Your task to perform on an android device: toggle pop-ups in chrome Image 0: 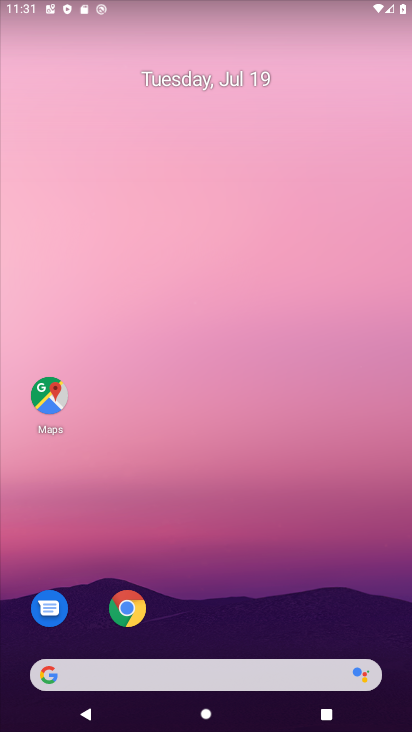
Step 0: press home button
Your task to perform on an android device: toggle pop-ups in chrome Image 1: 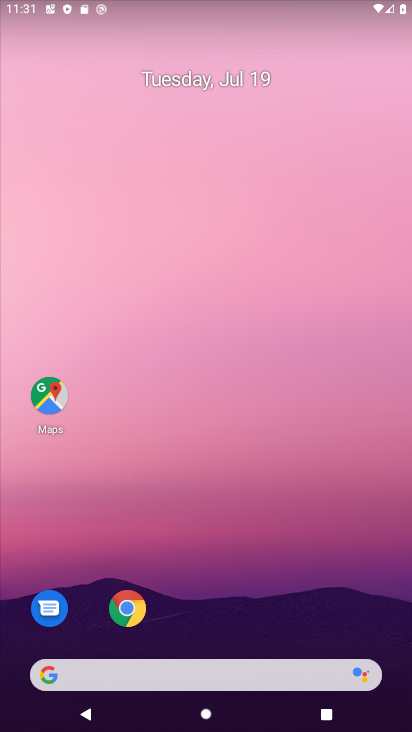
Step 1: click (125, 610)
Your task to perform on an android device: toggle pop-ups in chrome Image 2: 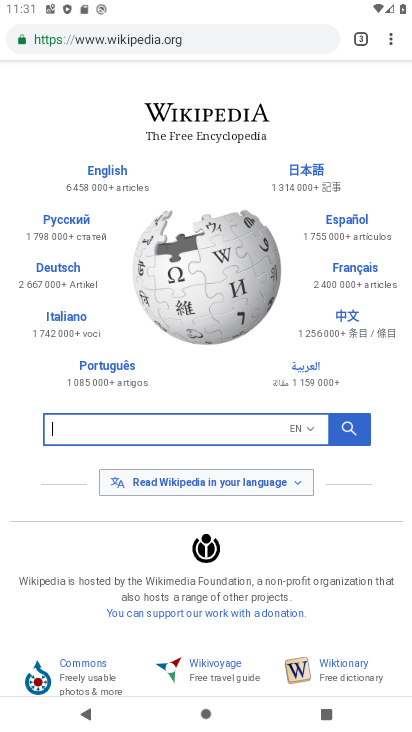
Step 2: drag from (395, 40) to (275, 505)
Your task to perform on an android device: toggle pop-ups in chrome Image 3: 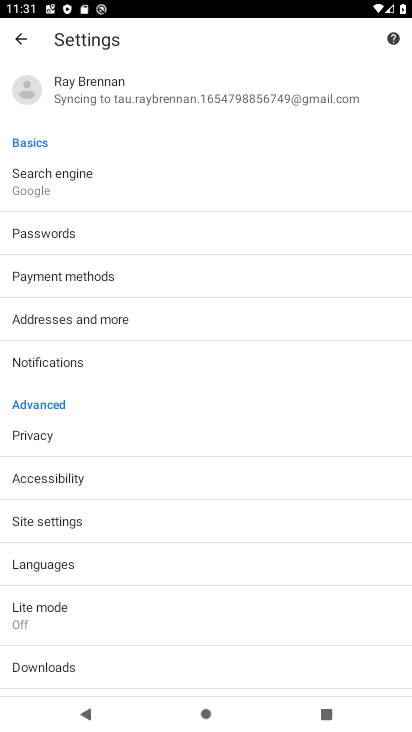
Step 3: click (39, 520)
Your task to perform on an android device: toggle pop-ups in chrome Image 4: 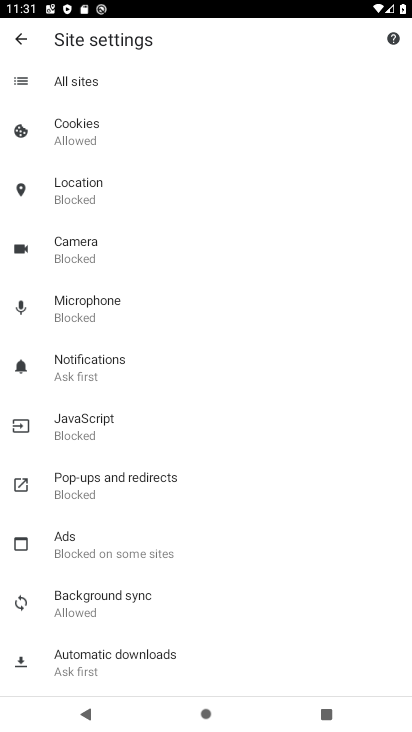
Step 4: click (118, 480)
Your task to perform on an android device: toggle pop-ups in chrome Image 5: 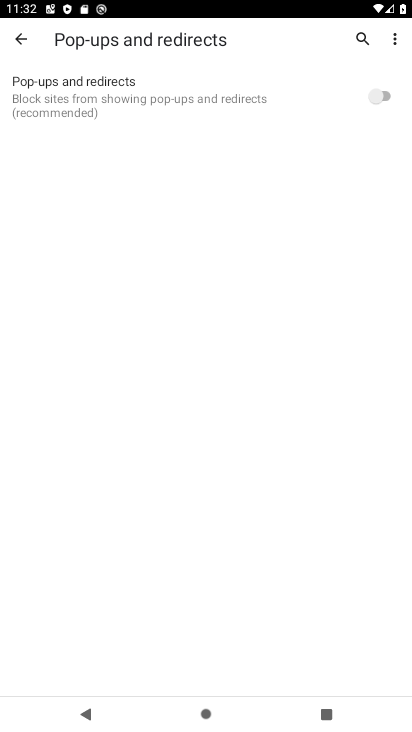
Step 5: click (387, 94)
Your task to perform on an android device: toggle pop-ups in chrome Image 6: 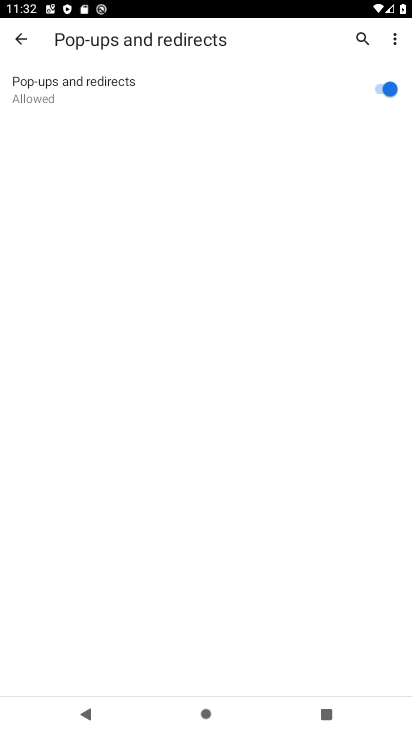
Step 6: task complete